Your task to perform on an android device: Go to Android settings Image 0: 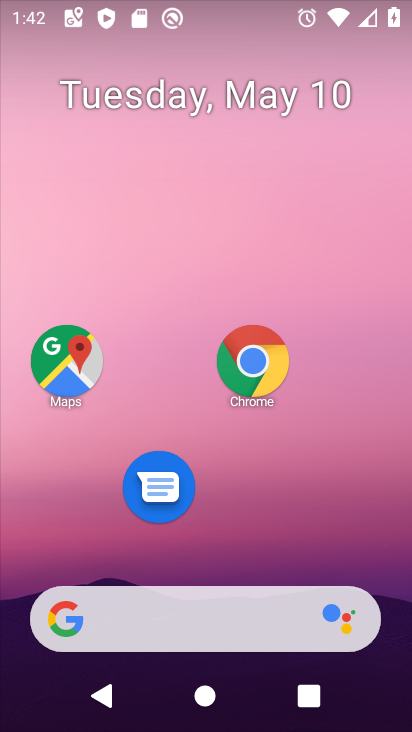
Step 0: drag from (378, 568) to (310, 288)
Your task to perform on an android device: Go to Android settings Image 1: 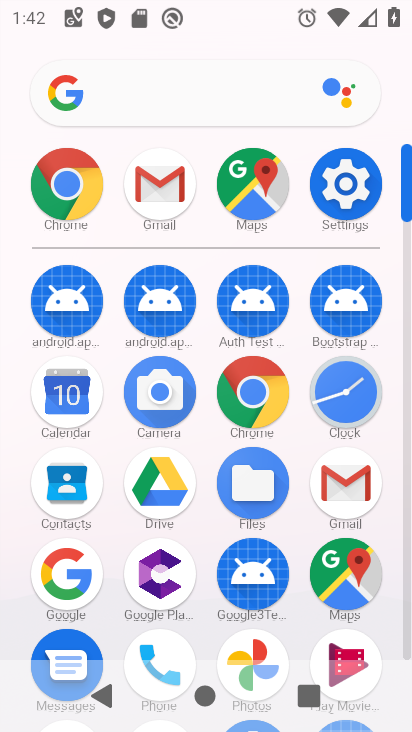
Step 1: click (338, 181)
Your task to perform on an android device: Go to Android settings Image 2: 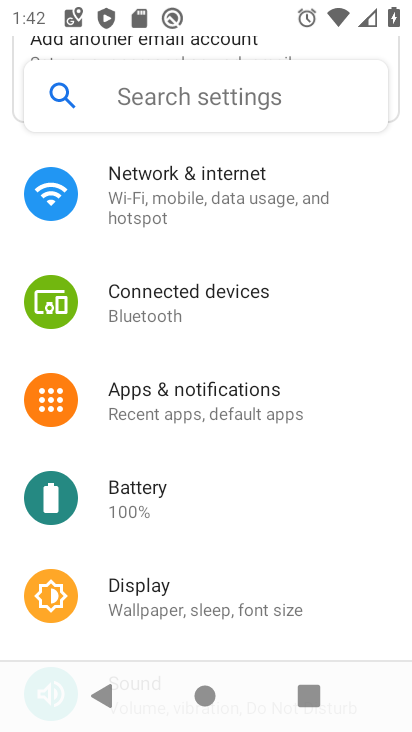
Step 2: task complete